Your task to perform on an android device: Search for "bose soundsport free" on amazon.com, select the first entry, add it to the cart, then select checkout. Image 0: 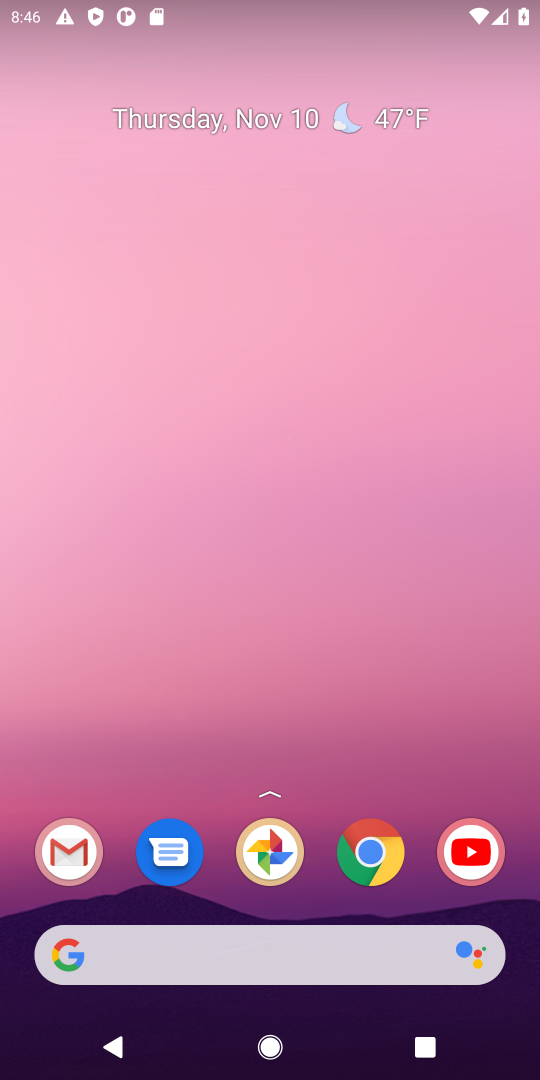
Step 0: click (365, 861)
Your task to perform on an android device: Search for "bose soundsport free" on amazon.com, select the first entry, add it to the cart, then select checkout. Image 1: 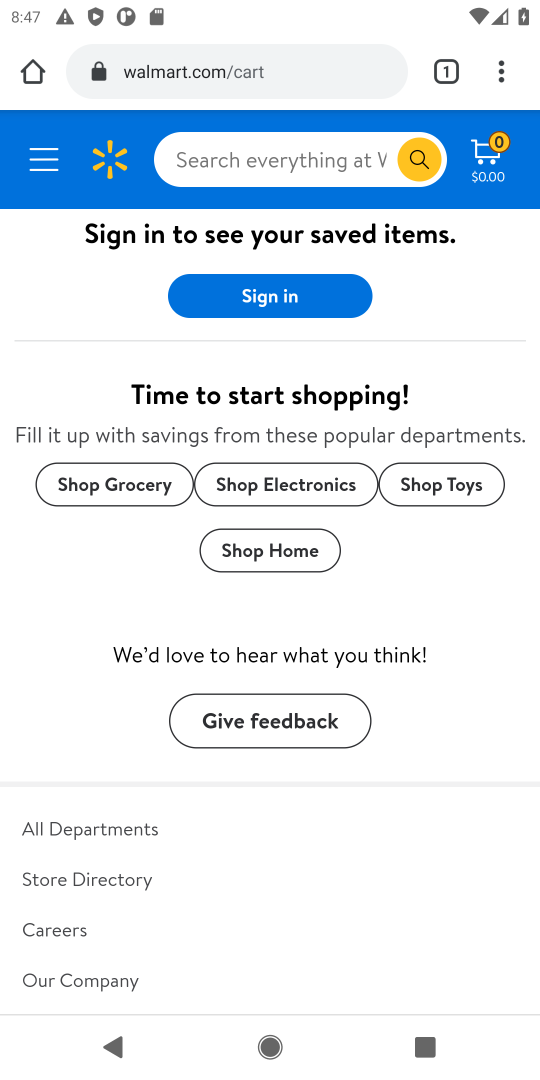
Step 1: click (283, 70)
Your task to perform on an android device: Search for "bose soundsport free" on amazon.com, select the first entry, add it to the cart, then select checkout. Image 2: 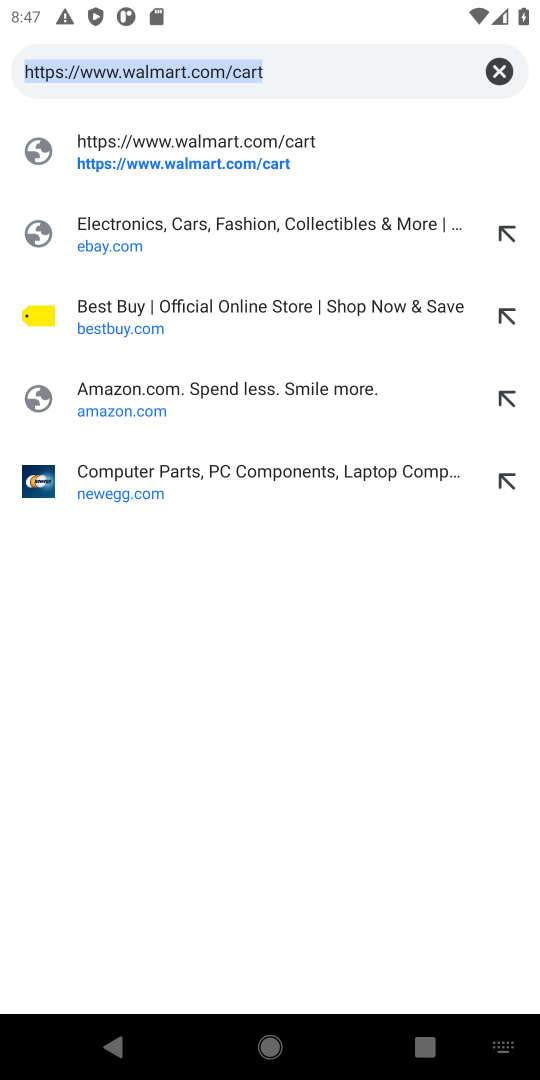
Step 2: click (498, 68)
Your task to perform on an android device: Search for "bose soundsport free" on amazon.com, select the first entry, add it to the cart, then select checkout. Image 3: 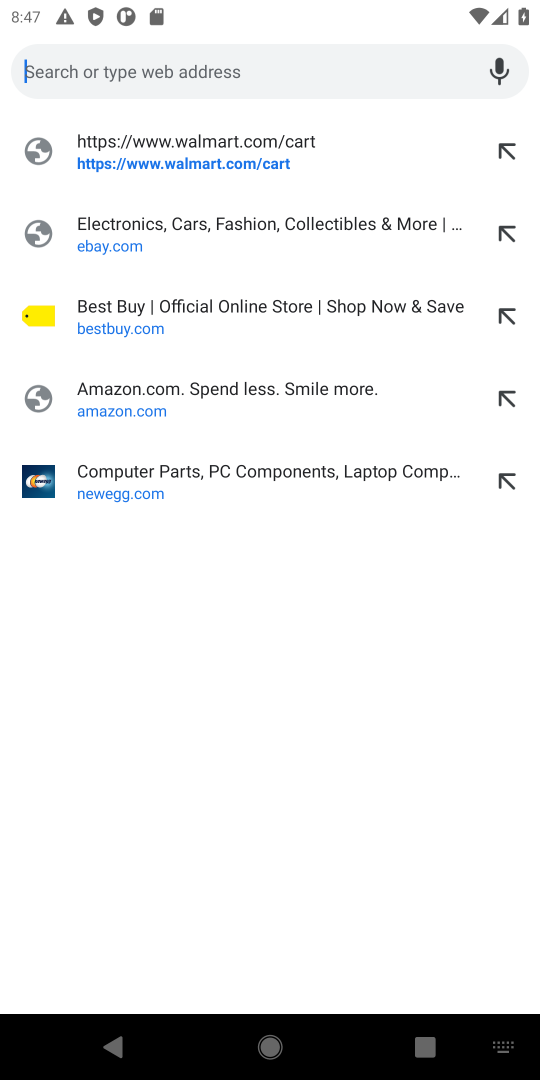
Step 3: click (125, 410)
Your task to perform on an android device: Search for "bose soundsport free" on amazon.com, select the first entry, add it to the cart, then select checkout. Image 4: 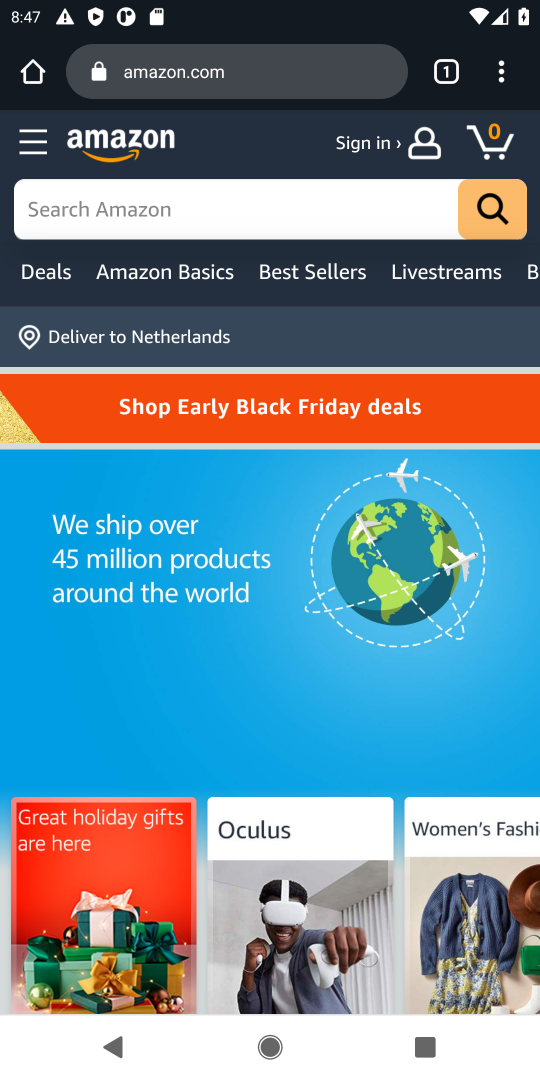
Step 4: click (138, 201)
Your task to perform on an android device: Search for "bose soundsport free" on amazon.com, select the first entry, add it to the cart, then select checkout. Image 5: 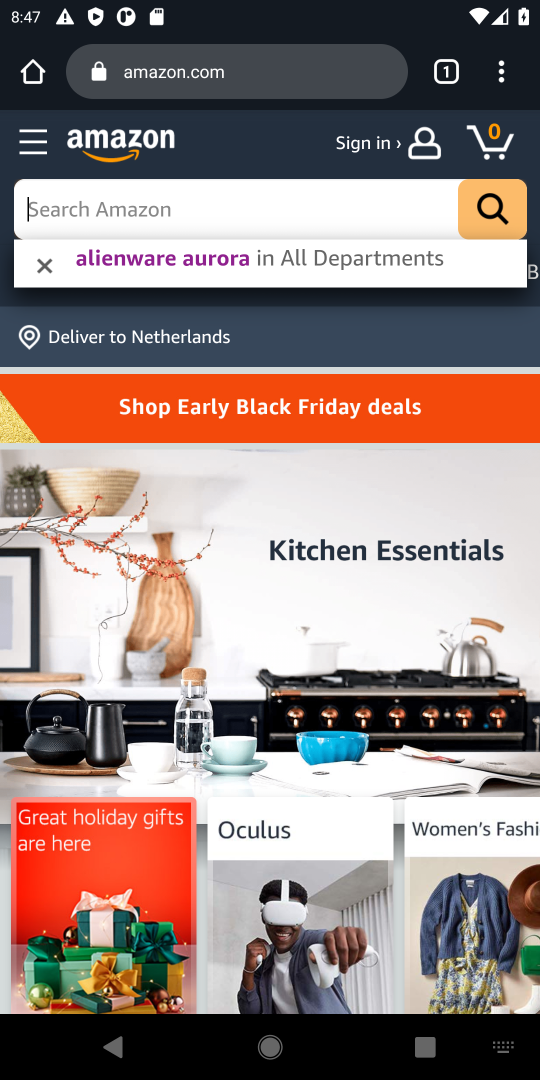
Step 5: click (110, 210)
Your task to perform on an android device: Search for "bose soundsport free" on amazon.com, select the first entry, add it to the cart, then select checkout. Image 6: 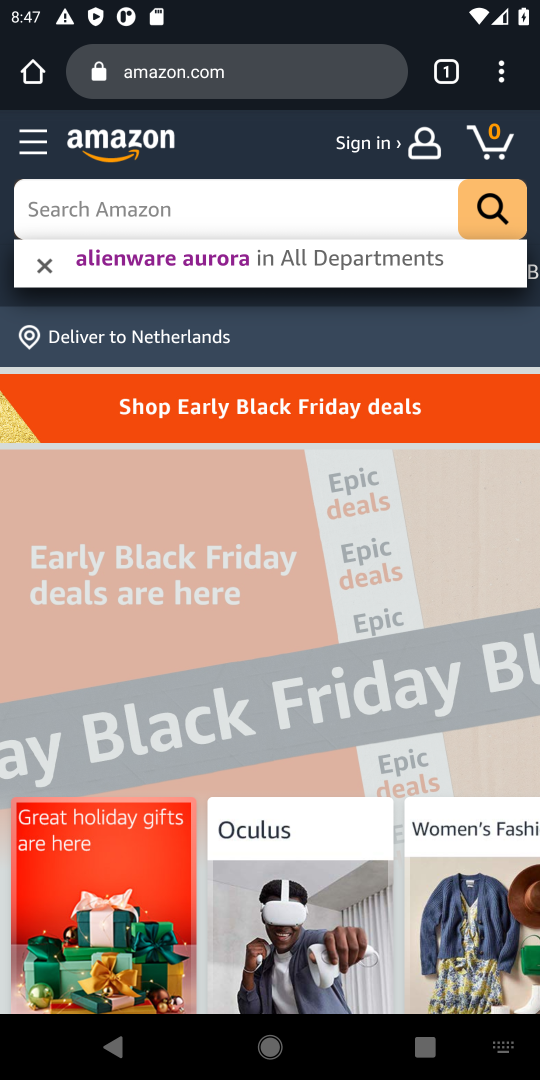
Step 6: click (114, 205)
Your task to perform on an android device: Search for "bose soundsport free" on amazon.com, select the first entry, add it to the cart, then select checkout. Image 7: 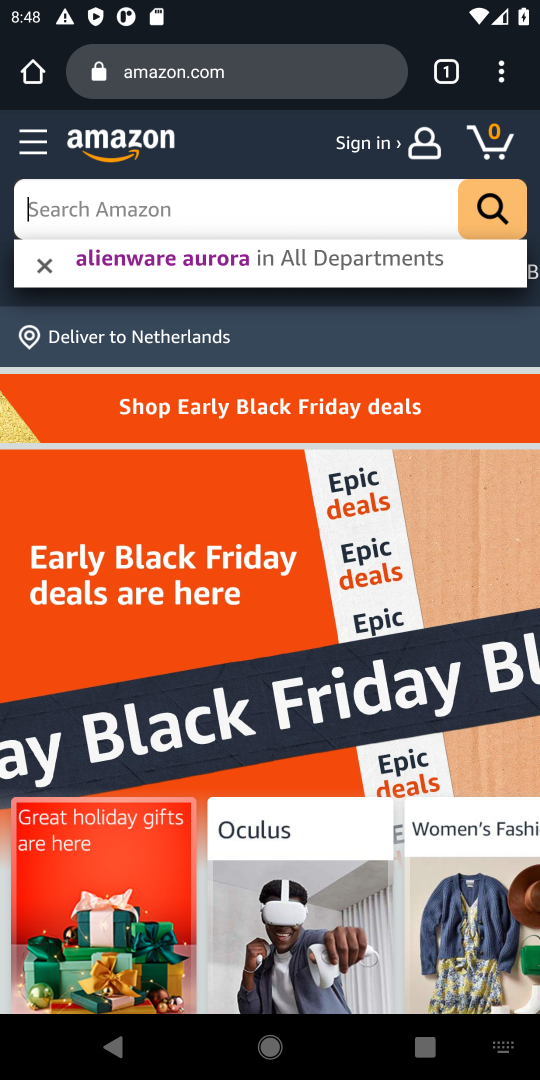
Step 7: press enter
Your task to perform on an android device: Search for "bose soundsport free" on amazon.com, select the first entry, add it to the cart, then select checkout. Image 8: 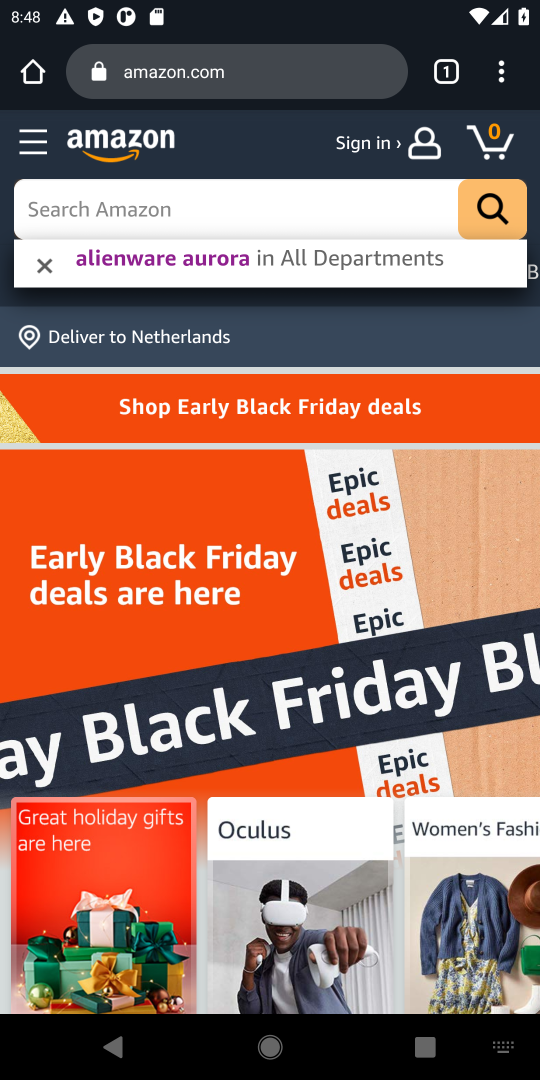
Step 8: type "bose soundsport free"
Your task to perform on an android device: Search for "bose soundsport free" on amazon.com, select the first entry, add it to the cart, then select checkout. Image 9: 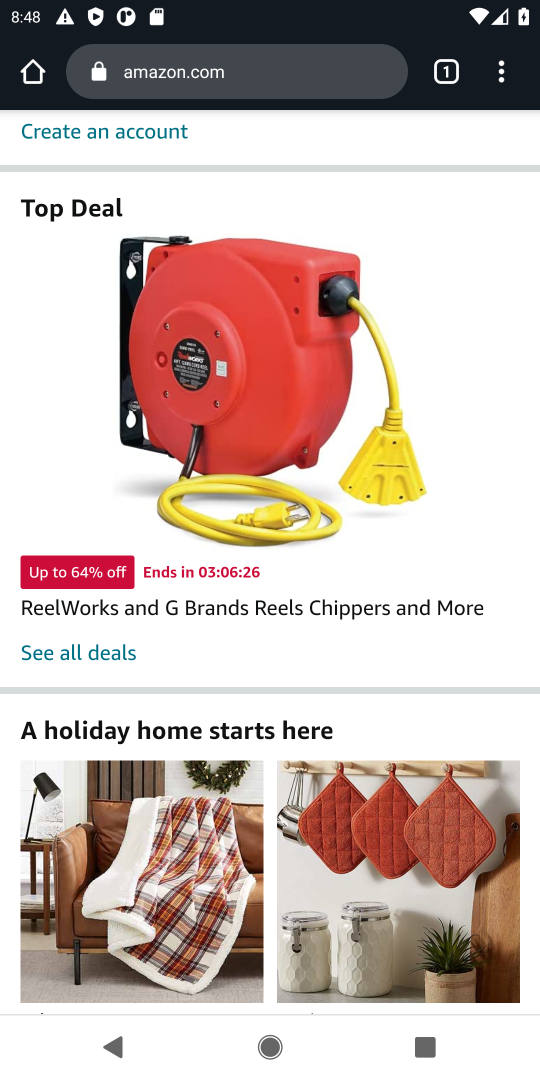
Step 9: drag from (379, 252) to (394, 830)
Your task to perform on an android device: Search for "bose soundsport free" on amazon.com, select the first entry, add it to the cart, then select checkout. Image 10: 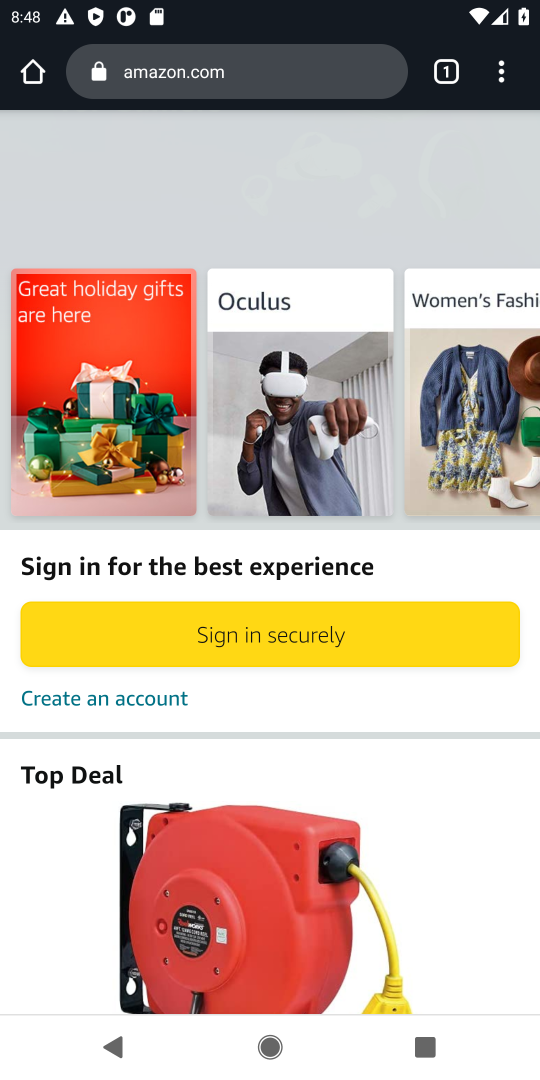
Step 10: drag from (325, 225) to (308, 598)
Your task to perform on an android device: Search for "bose soundsport free" on amazon.com, select the first entry, add it to the cart, then select checkout. Image 11: 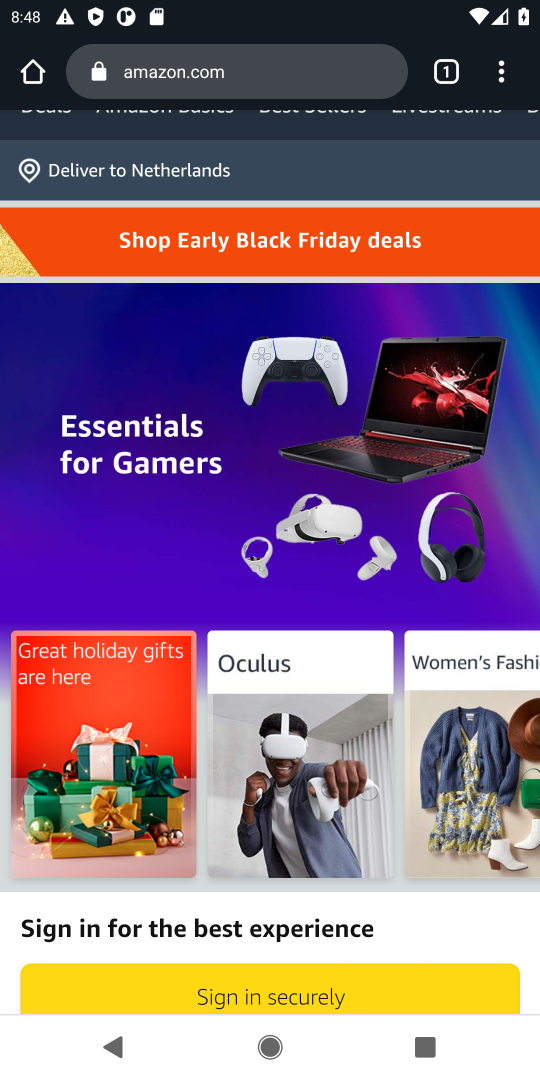
Step 11: drag from (209, 575) to (215, 945)
Your task to perform on an android device: Search for "bose soundsport free" on amazon.com, select the first entry, add it to the cart, then select checkout. Image 12: 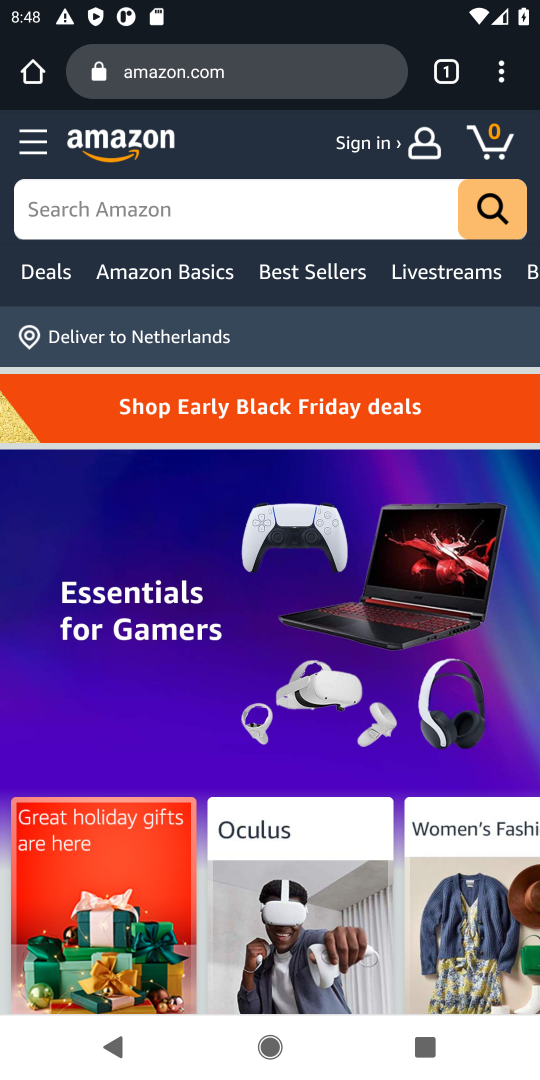
Step 12: click (150, 204)
Your task to perform on an android device: Search for "bose soundsport free" on amazon.com, select the first entry, add it to the cart, then select checkout. Image 13: 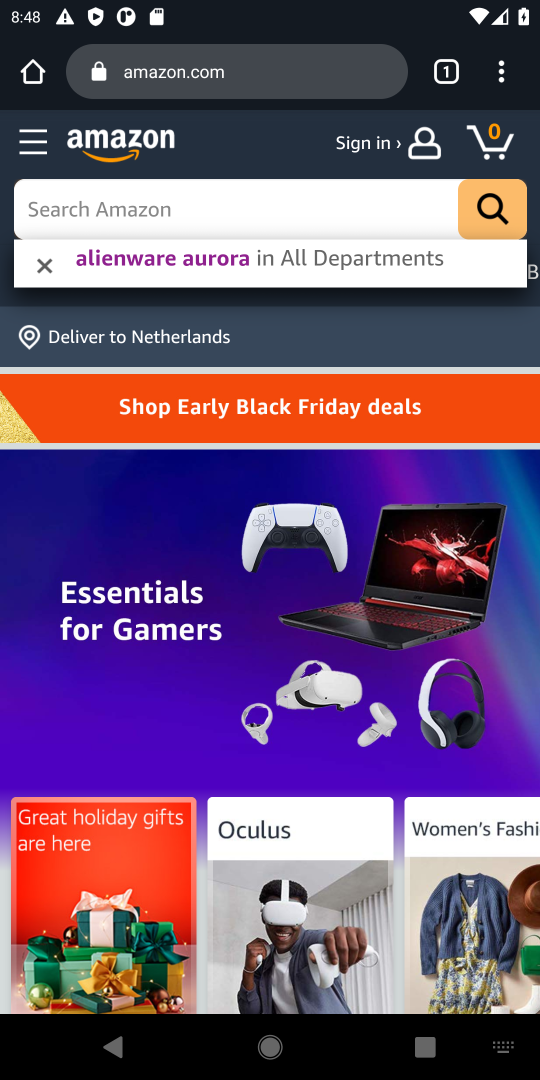
Step 13: click (147, 195)
Your task to perform on an android device: Search for "bose soundsport free" on amazon.com, select the first entry, add it to the cart, then select checkout. Image 14: 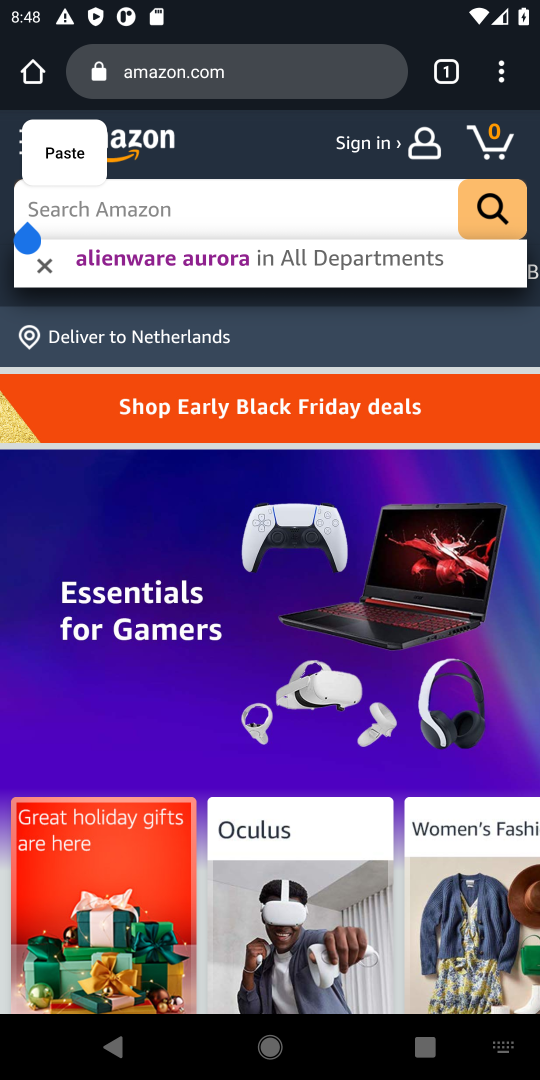
Step 14: type "bose soundsport free"
Your task to perform on an android device: Search for "bose soundsport free" on amazon.com, select the first entry, add it to the cart, then select checkout. Image 15: 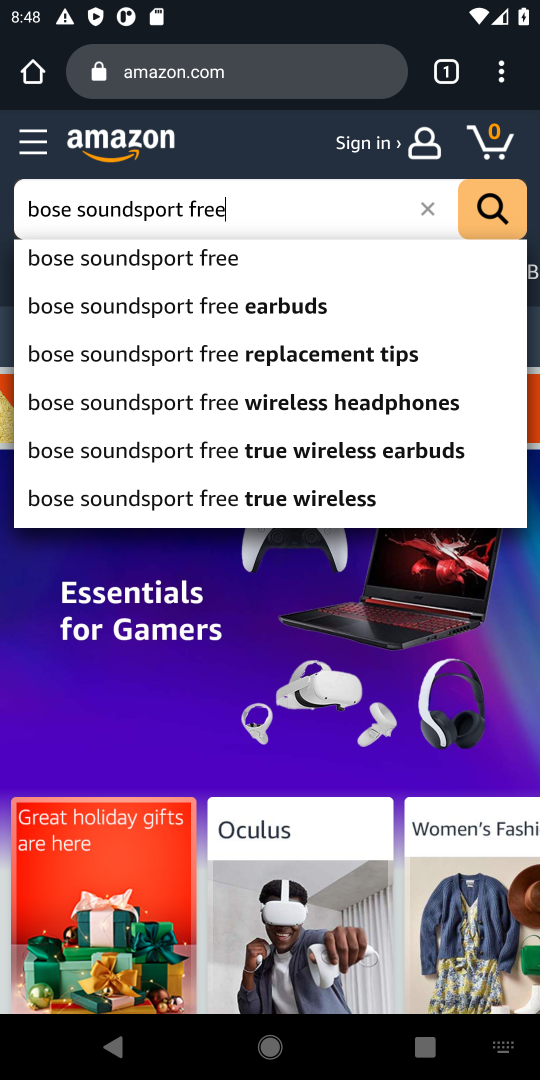
Step 15: press enter
Your task to perform on an android device: Search for "bose soundsport free" on amazon.com, select the first entry, add it to the cart, then select checkout. Image 16: 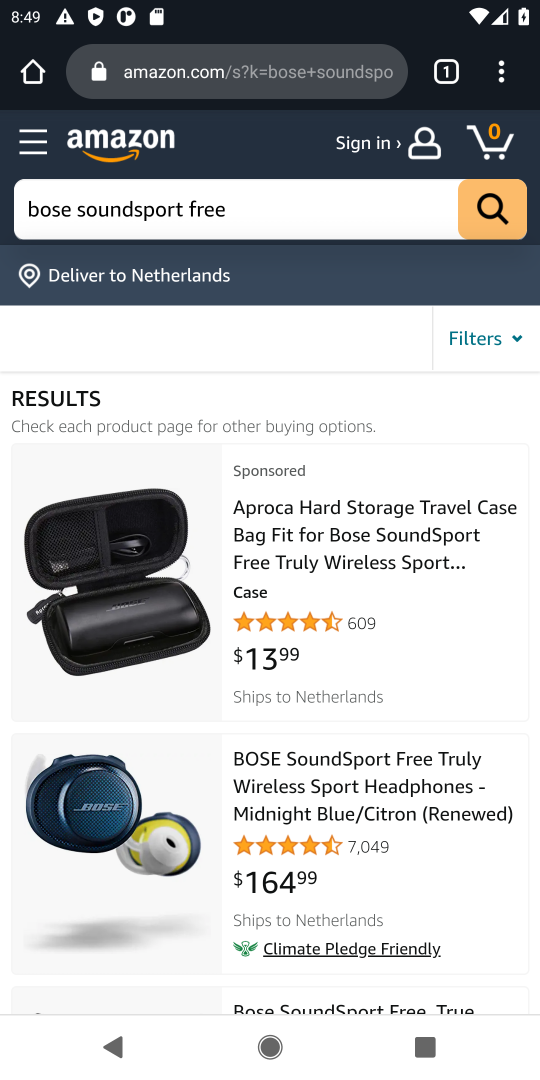
Step 16: task complete